Your task to perform on an android device: see creations saved in the google photos Image 0: 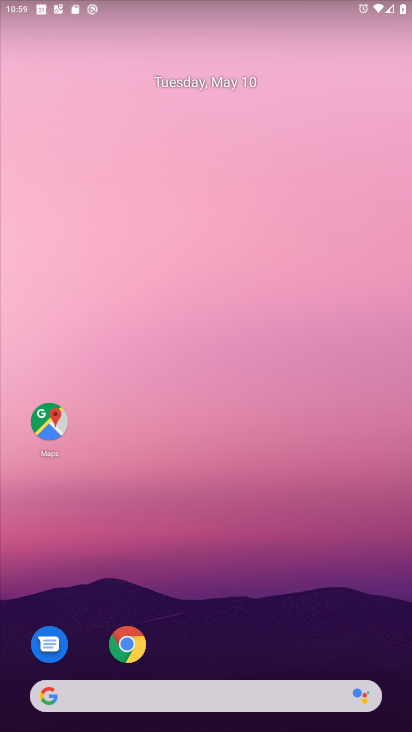
Step 0: drag from (202, 551) to (257, 76)
Your task to perform on an android device: see creations saved in the google photos Image 1: 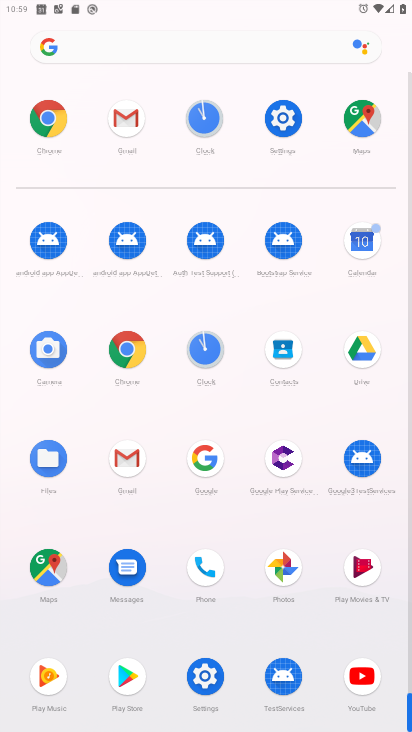
Step 1: click (292, 594)
Your task to perform on an android device: see creations saved in the google photos Image 2: 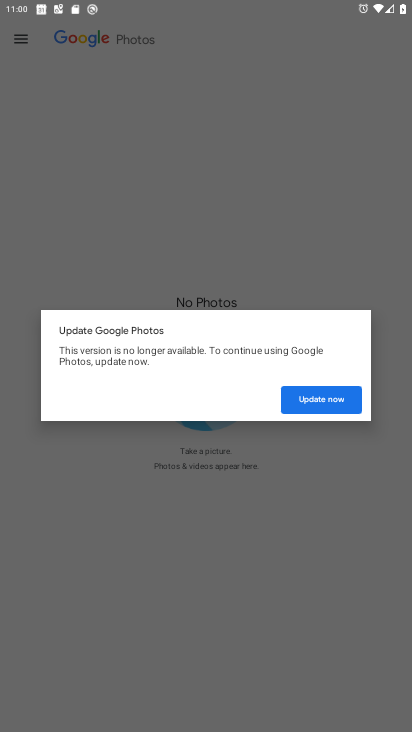
Step 2: press home button
Your task to perform on an android device: see creations saved in the google photos Image 3: 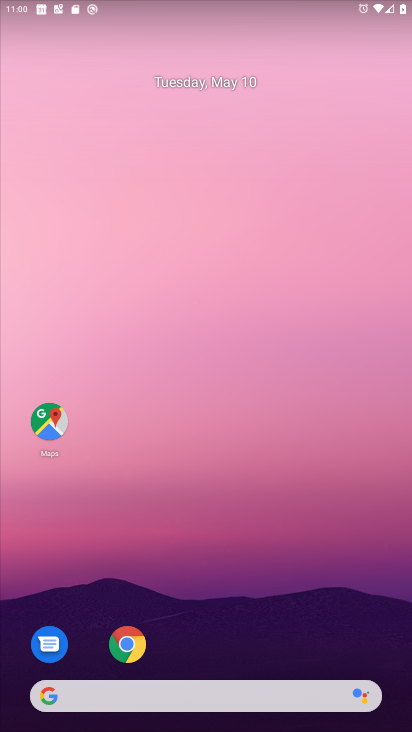
Step 3: drag from (249, 644) to (323, 186)
Your task to perform on an android device: see creations saved in the google photos Image 4: 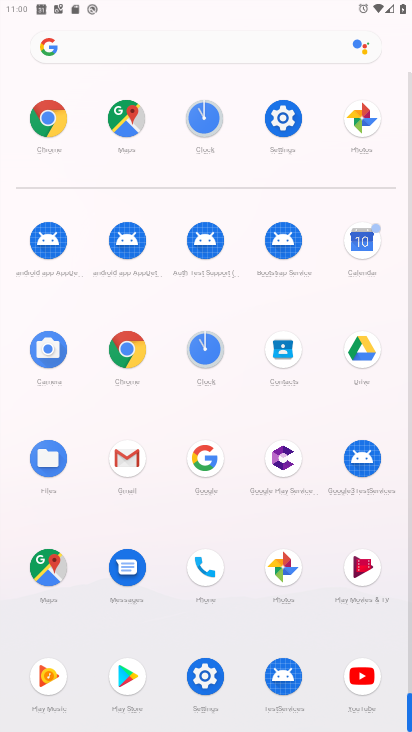
Step 4: click (289, 582)
Your task to perform on an android device: see creations saved in the google photos Image 5: 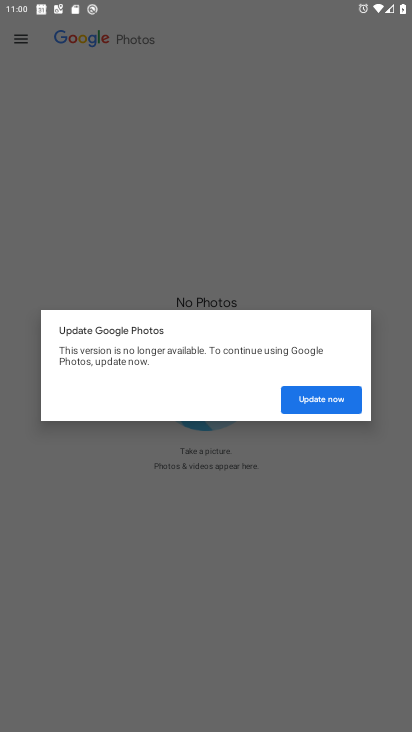
Step 5: task complete